Your task to perform on an android device: Go to network settings Image 0: 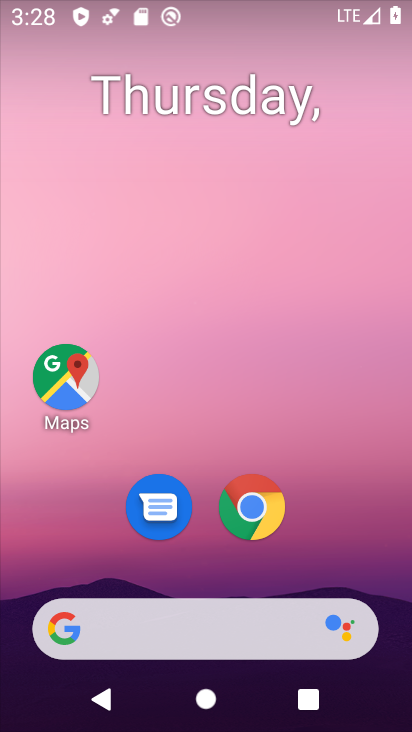
Step 0: press home button
Your task to perform on an android device: Go to network settings Image 1: 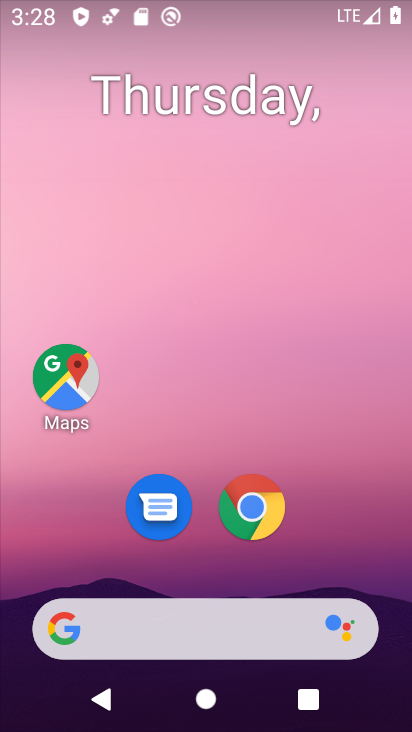
Step 1: drag from (351, 559) to (331, 179)
Your task to perform on an android device: Go to network settings Image 2: 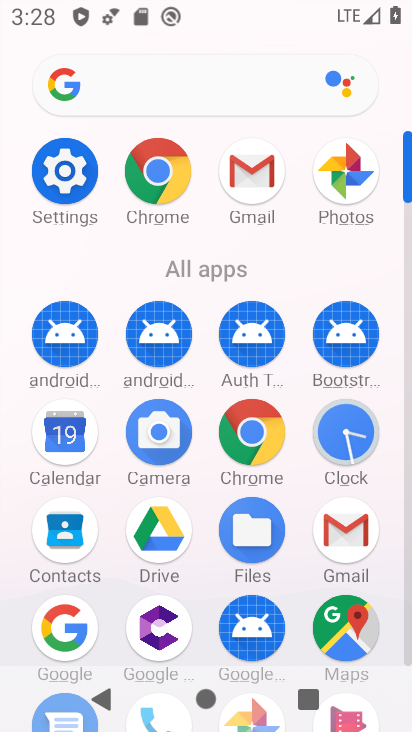
Step 2: click (89, 181)
Your task to perform on an android device: Go to network settings Image 3: 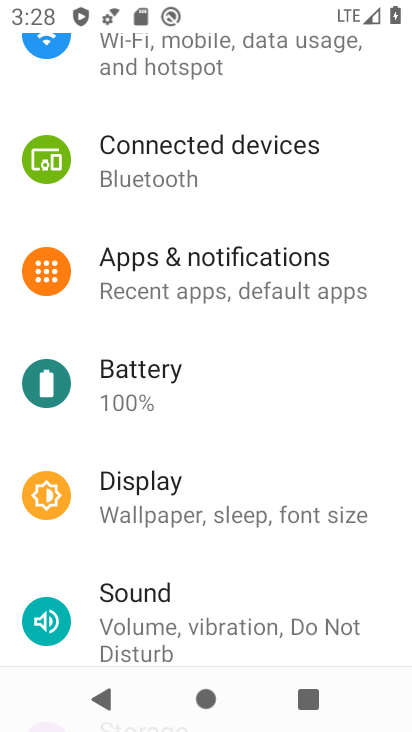
Step 3: drag from (269, 216) to (294, 694)
Your task to perform on an android device: Go to network settings Image 4: 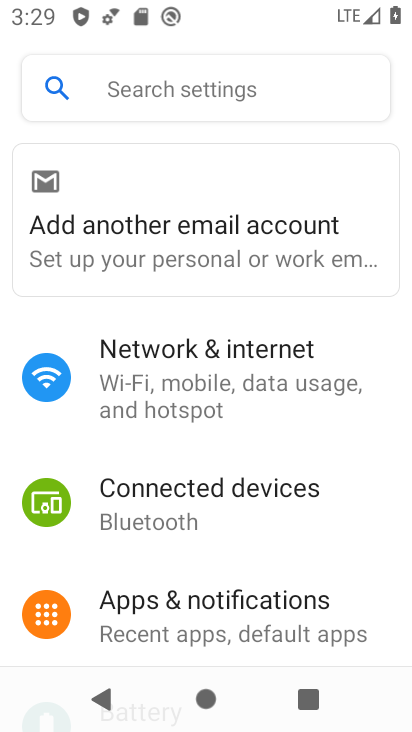
Step 4: click (207, 378)
Your task to perform on an android device: Go to network settings Image 5: 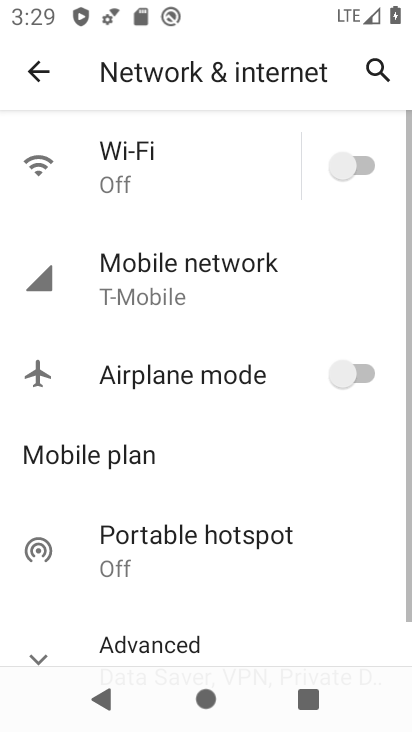
Step 5: task complete